Your task to perform on an android device: Open display settings Image 0: 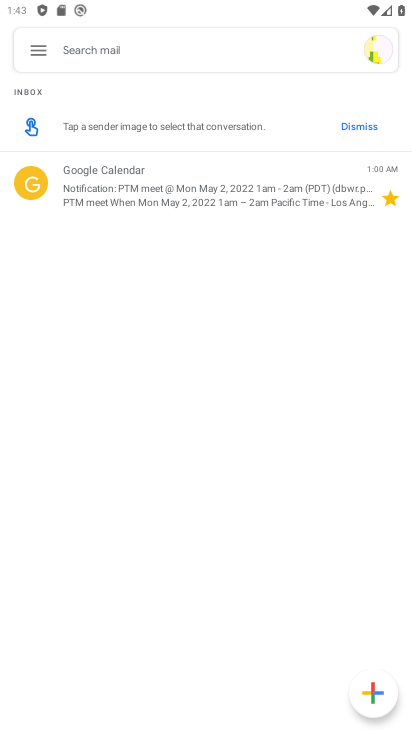
Step 0: press home button
Your task to perform on an android device: Open display settings Image 1: 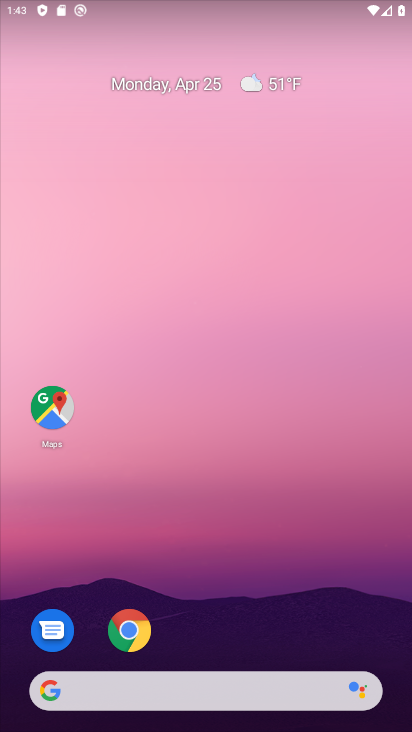
Step 1: drag from (295, 581) to (323, 54)
Your task to perform on an android device: Open display settings Image 2: 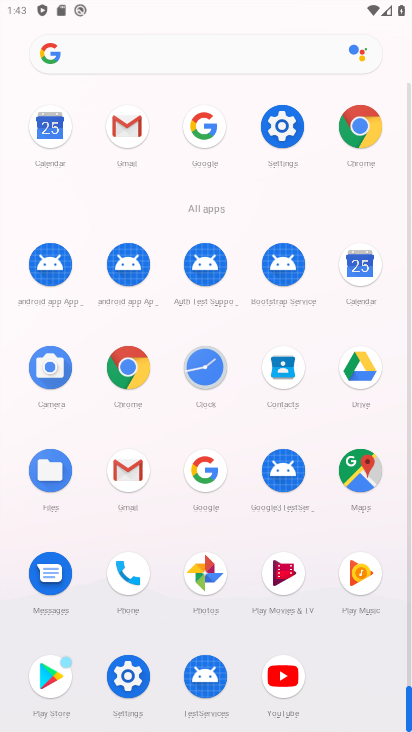
Step 2: click (266, 150)
Your task to perform on an android device: Open display settings Image 3: 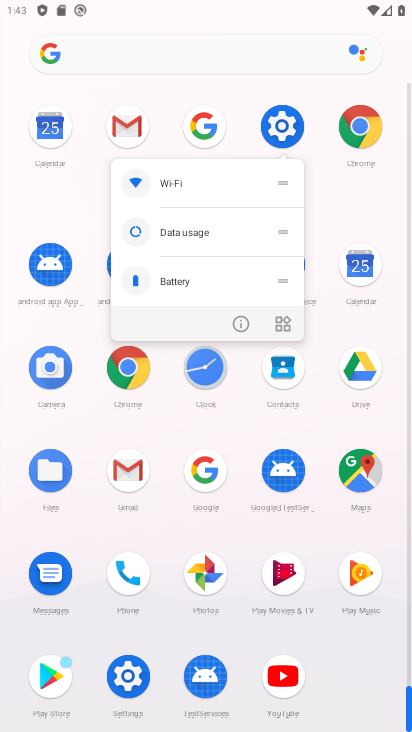
Step 3: click (284, 115)
Your task to perform on an android device: Open display settings Image 4: 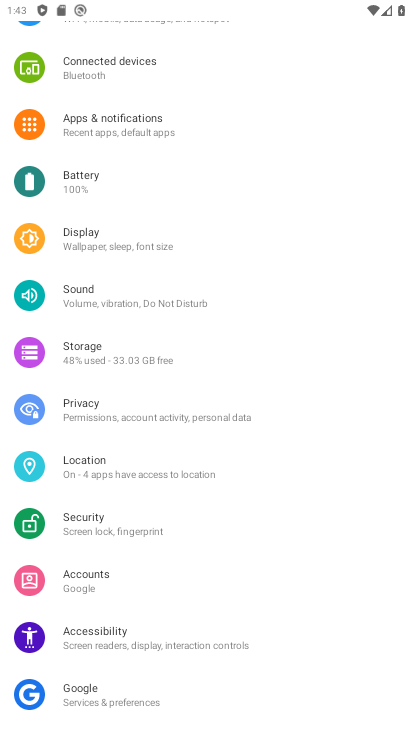
Step 4: drag from (168, 161) to (213, 490)
Your task to perform on an android device: Open display settings Image 5: 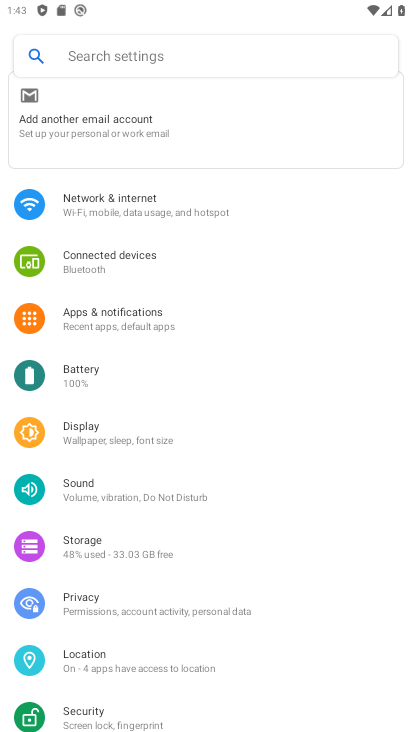
Step 5: click (152, 438)
Your task to perform on an android device: Open display settings Image 6: 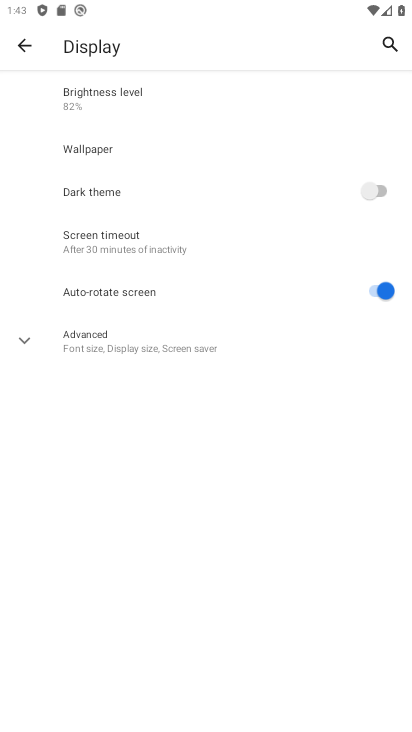
Step 6: task complete